Your task to perform on an android device: check out phone information Image 0: 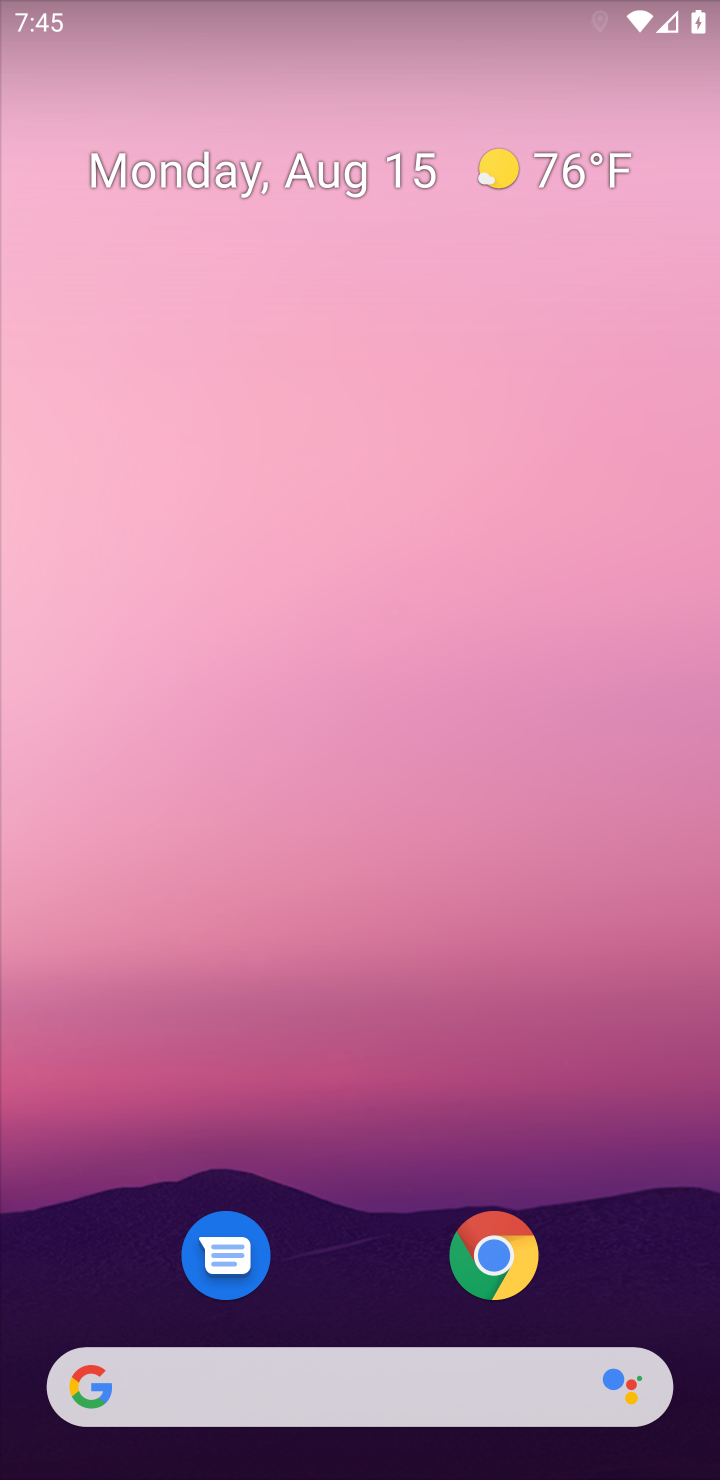
Step 0: press home button
Your task to perform on an android device: check out phone information Image 1: 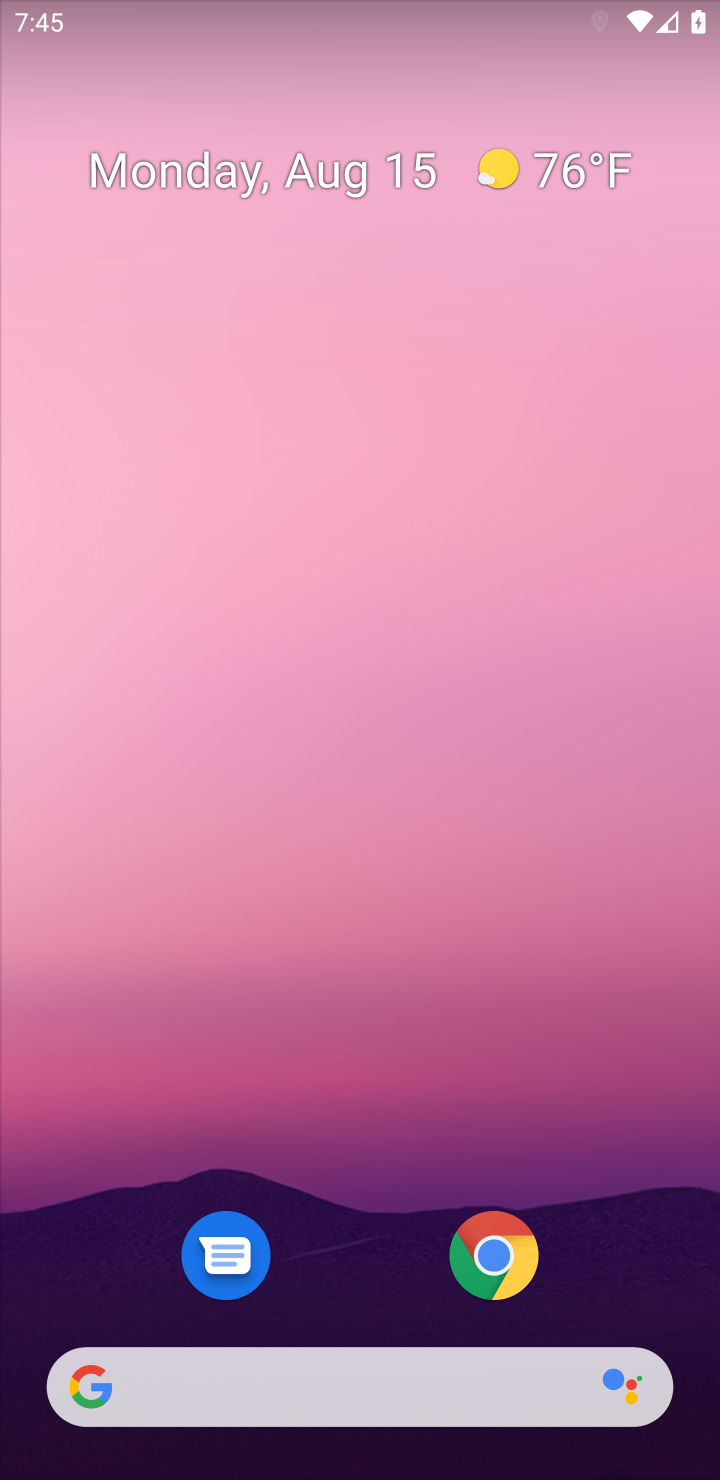
Step 1: press home button
Your task to perform on an android device: check out phone information Image 2: 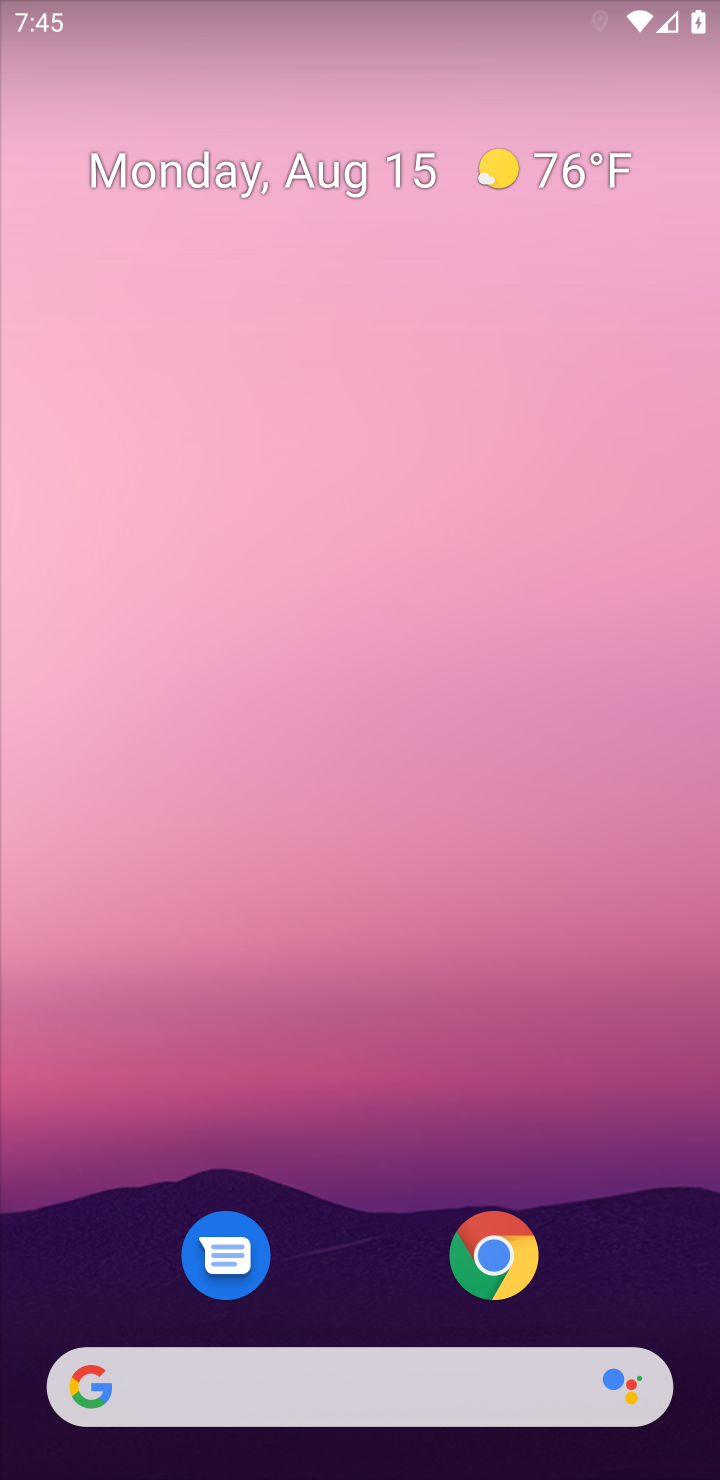
Step 2: drag from (369, 1292) to (404, 89)
Your task to perform on an android device: check out phone information Image 3: 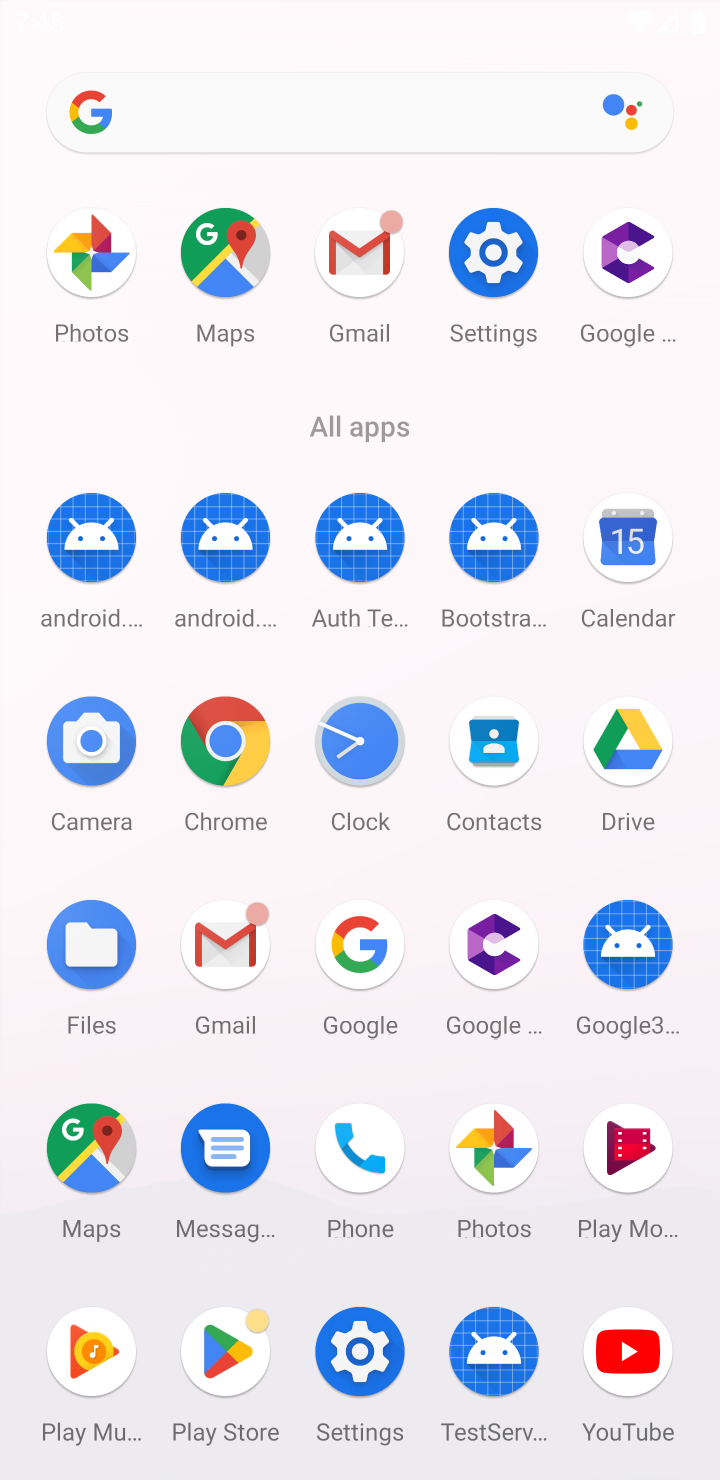
Step 3: click (350, 1349)
Your task to perform on an android device: check out phone information Image 4: 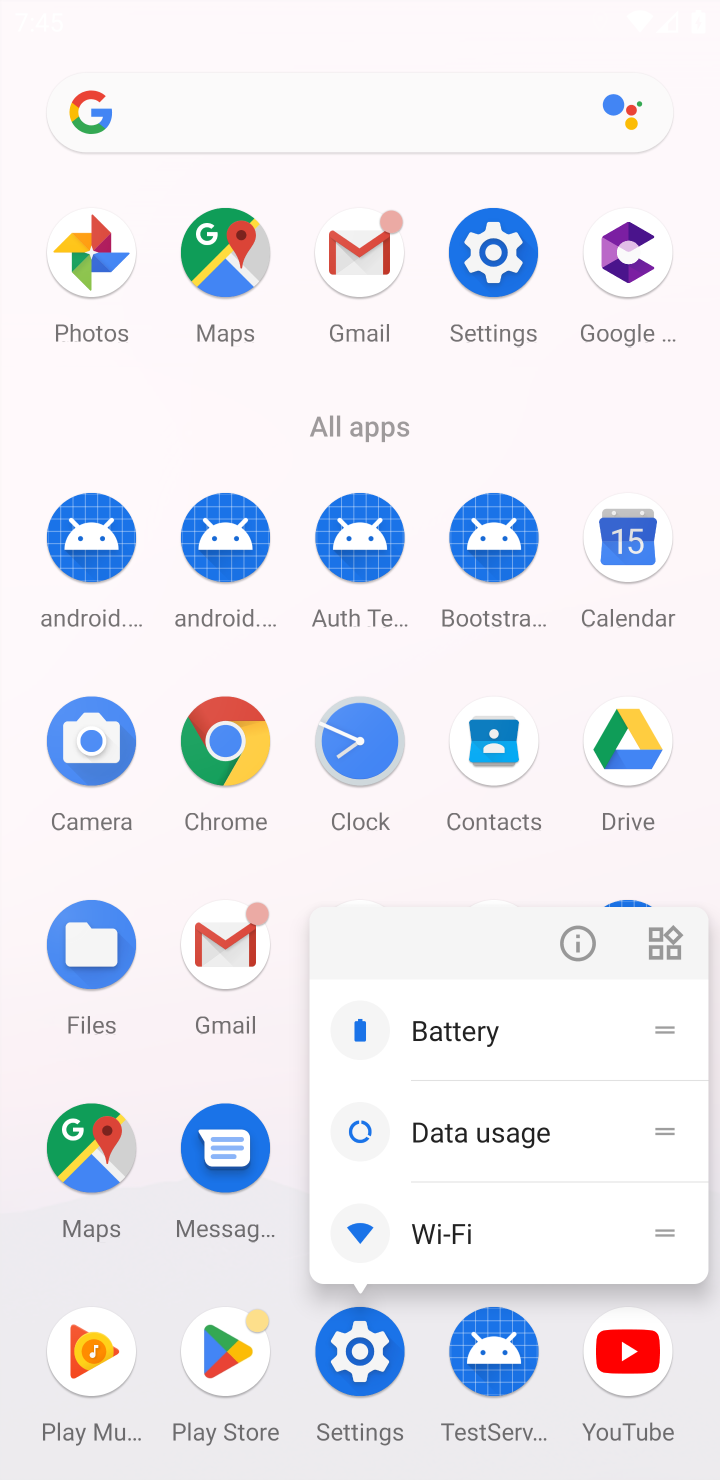
Step 4: click (374, 1344)
Your task to perform on an android device: check out phone information Image 5: 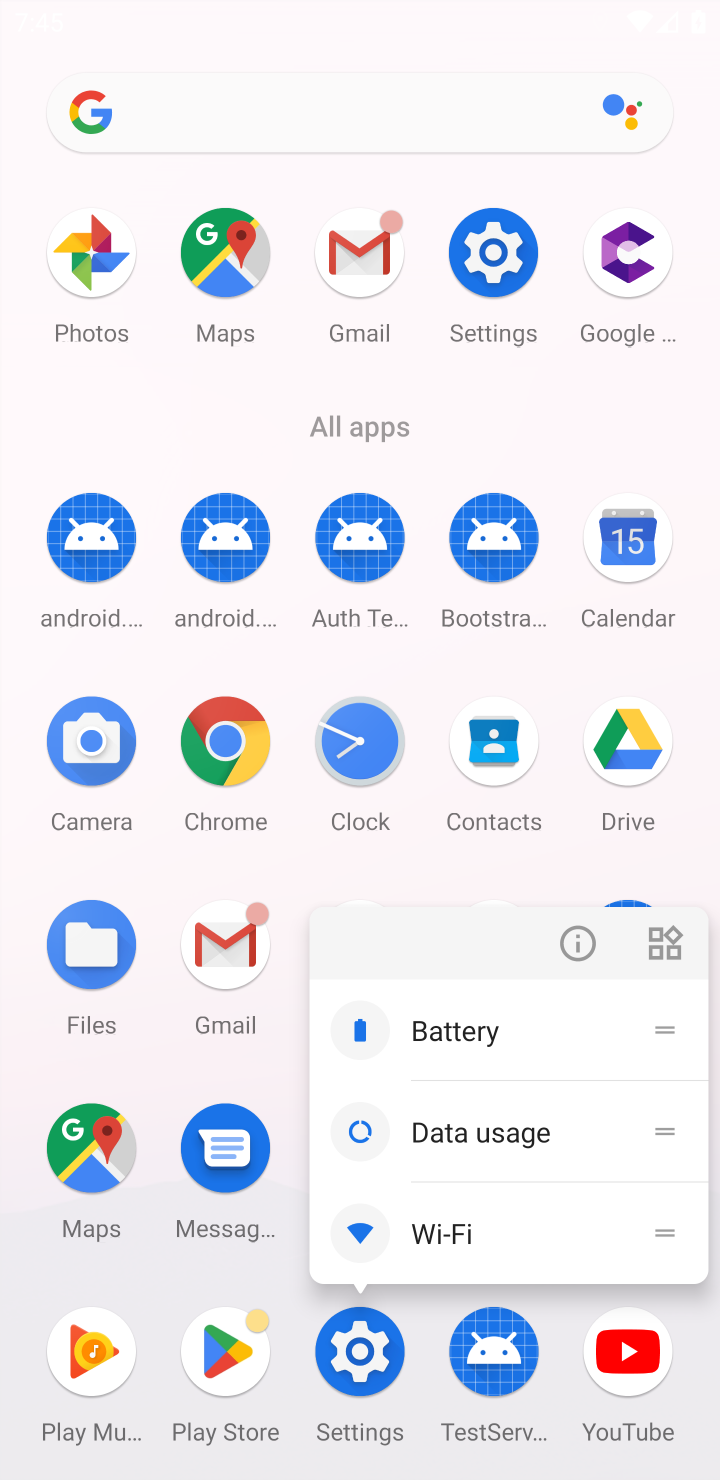
Step 5: click (361, 1341)
Your task to perform on an android device: check out phone information Image 6: 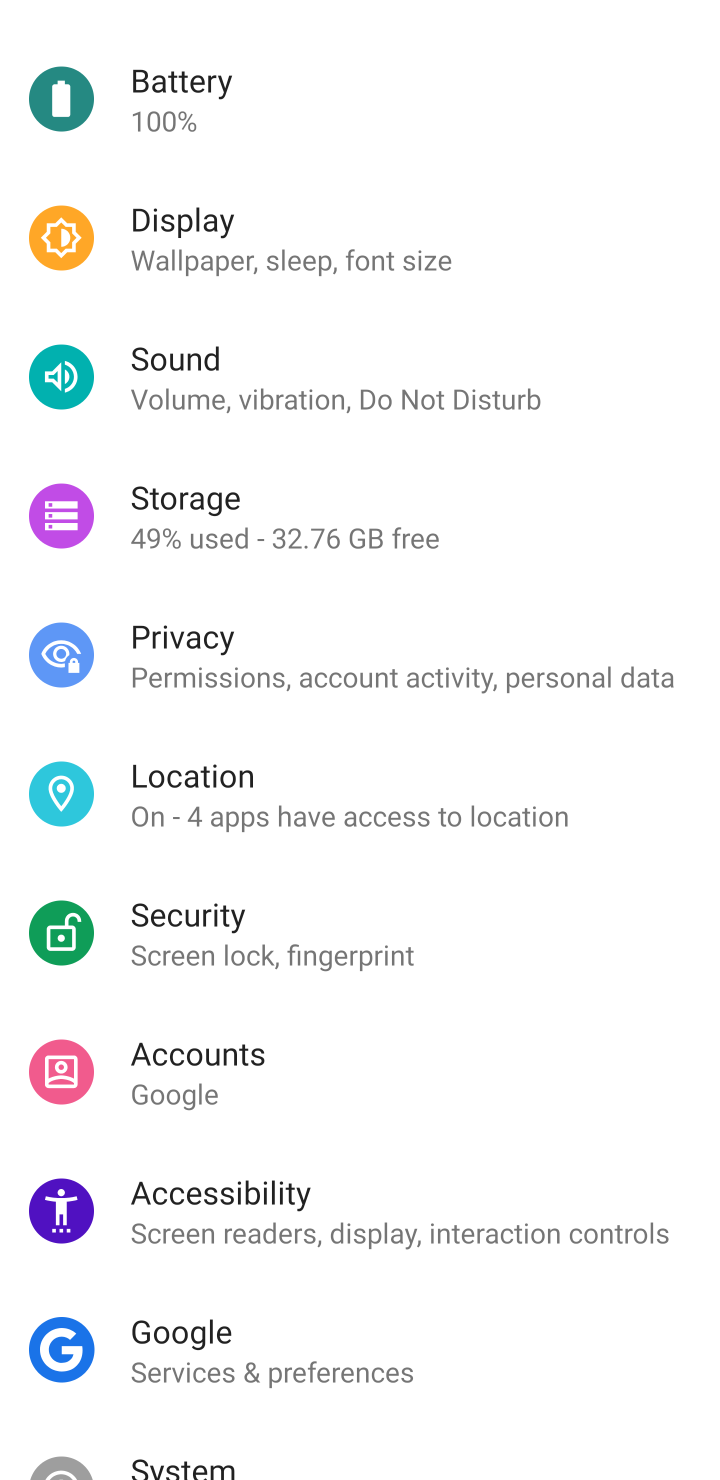
Step 6: drag from (336, 1393) to (321, 252)
Your task to perform on an android device: check out phone information Image 7: 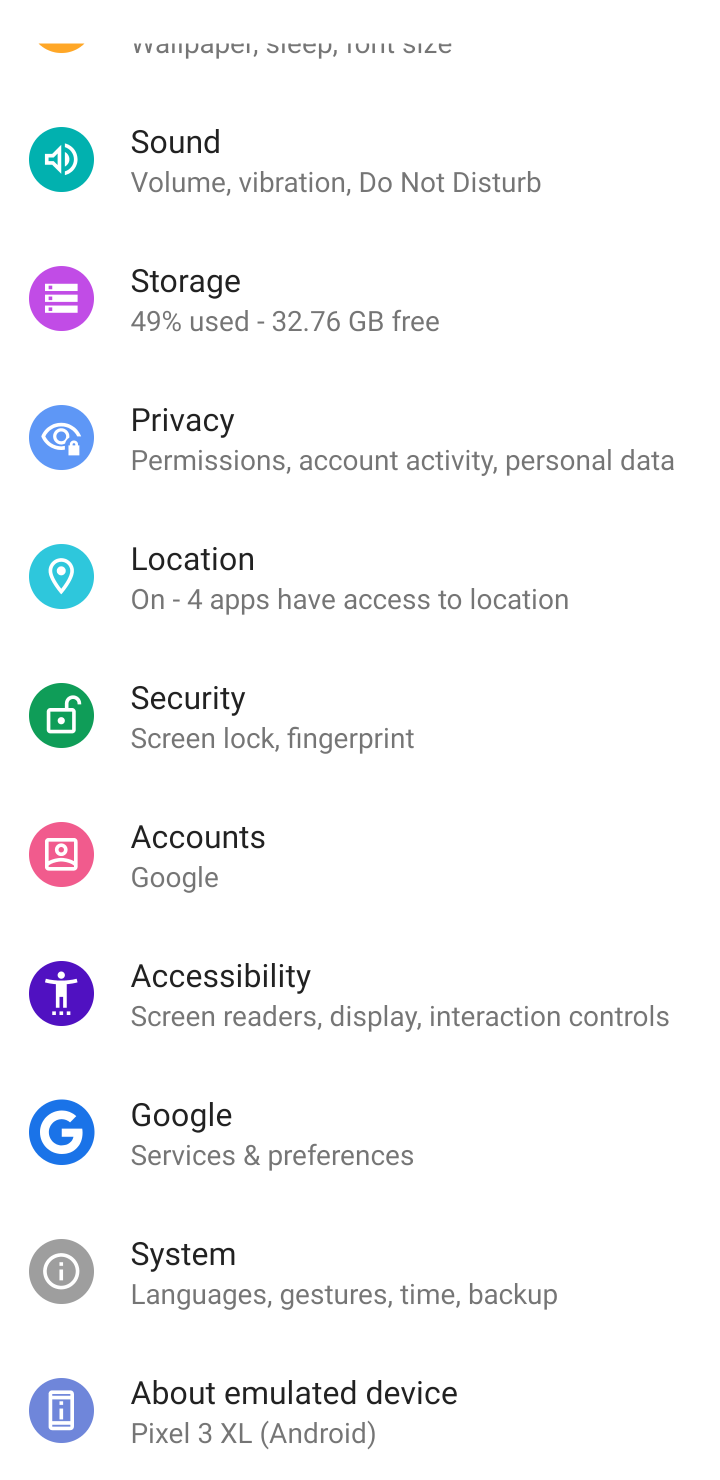
Step 7: click (402, 1416)
Your task to perform on an android device: check out phone information Image 8: 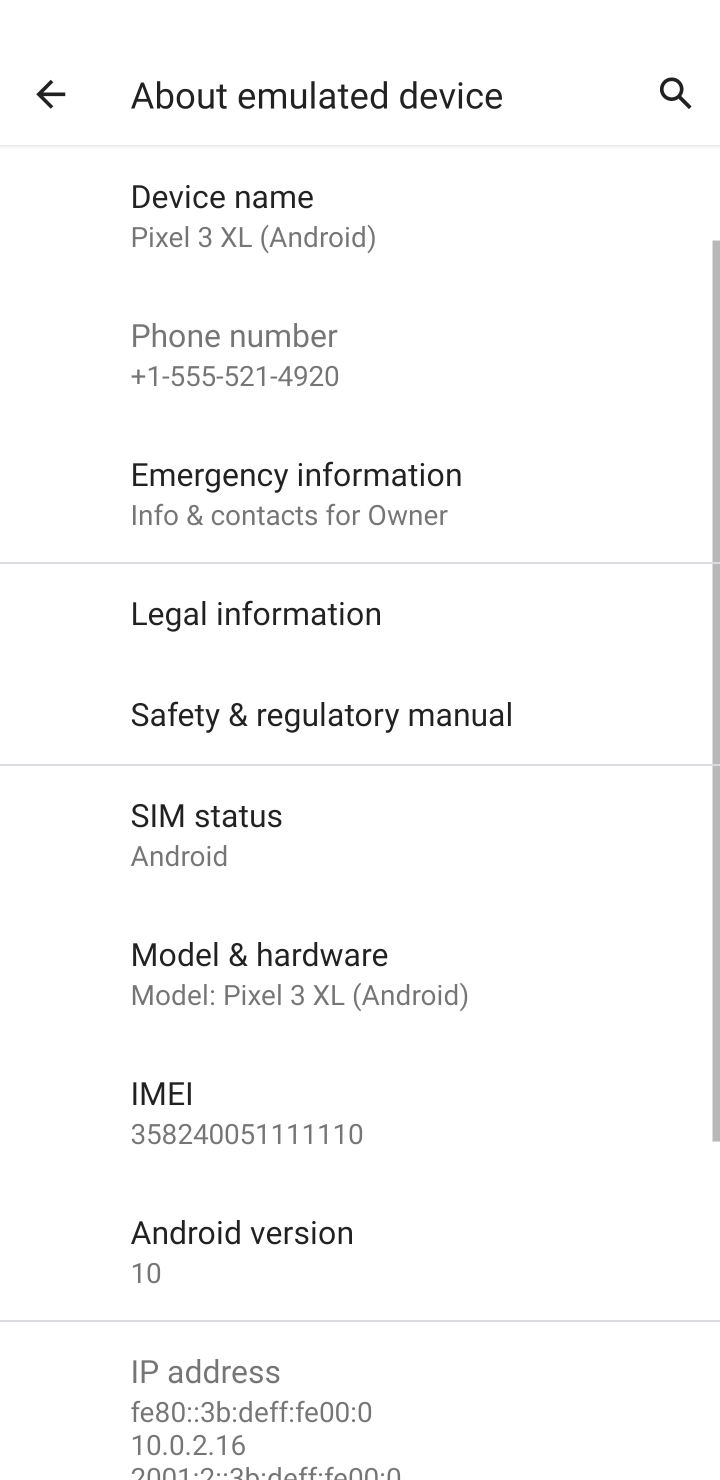
Step 8: task complete